Your task to perform on an android device: turn off notifications in google photos Image 0: 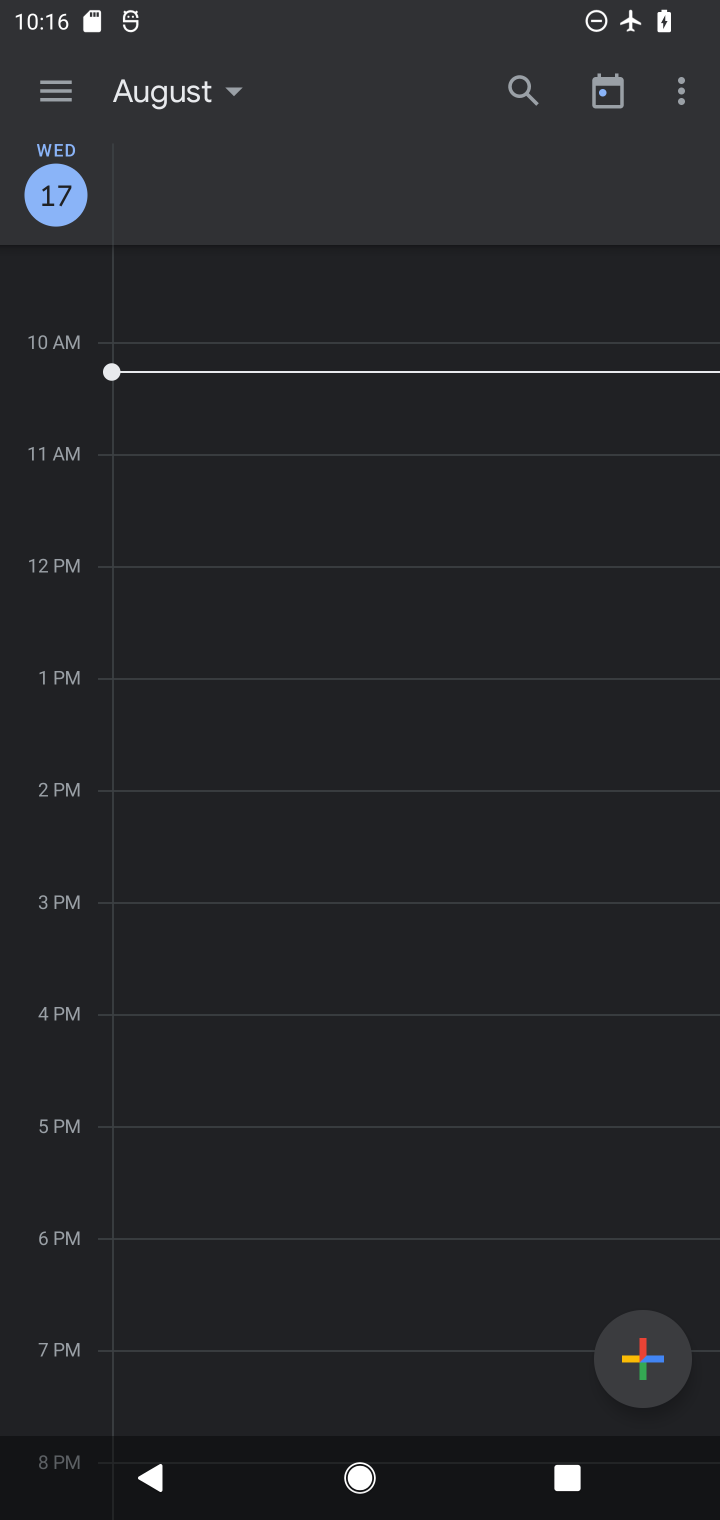
Step 0: press home button
Your task to perform on an android device: turn off notifications in google photos Image 1: 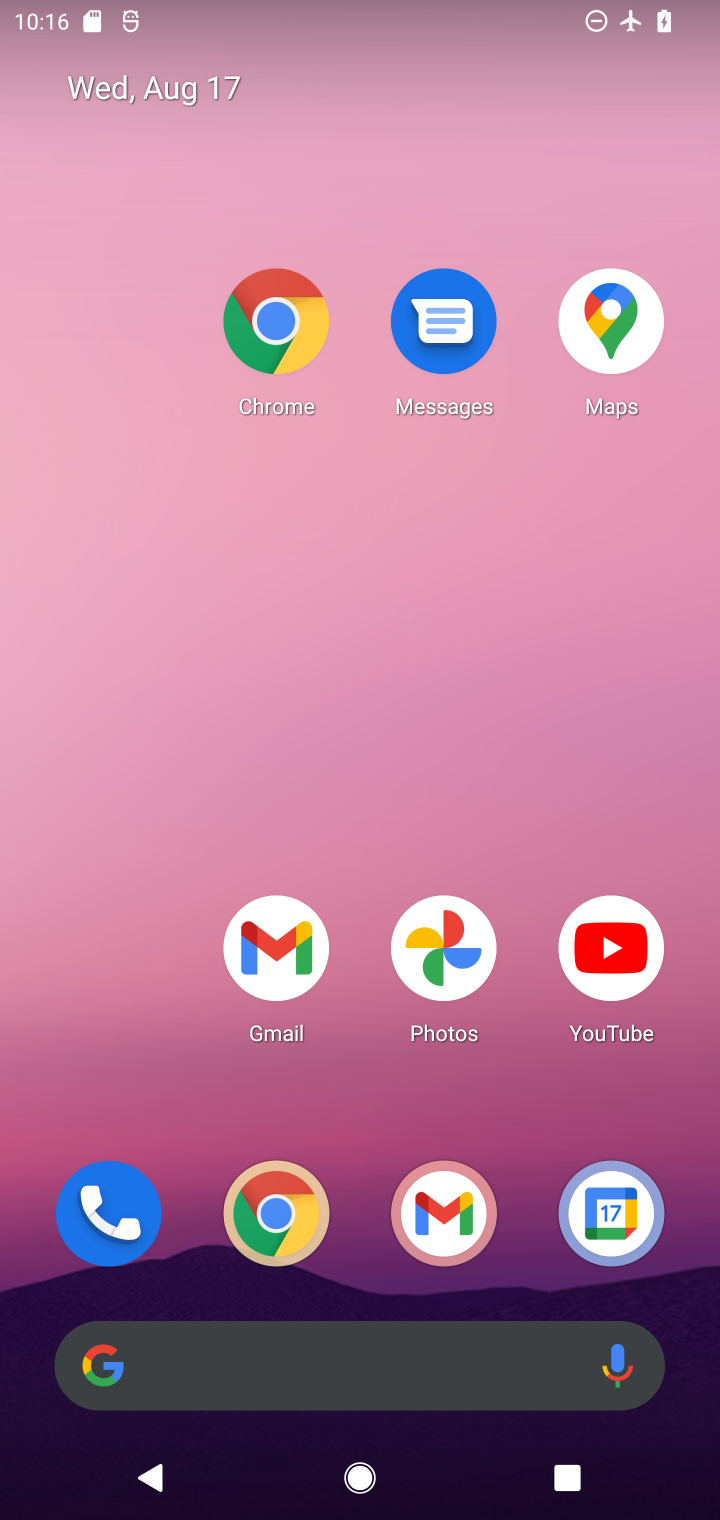
Step 1: click (438, 954)
Your task to perform on an android device: turn off notifications in google photos Image 2: 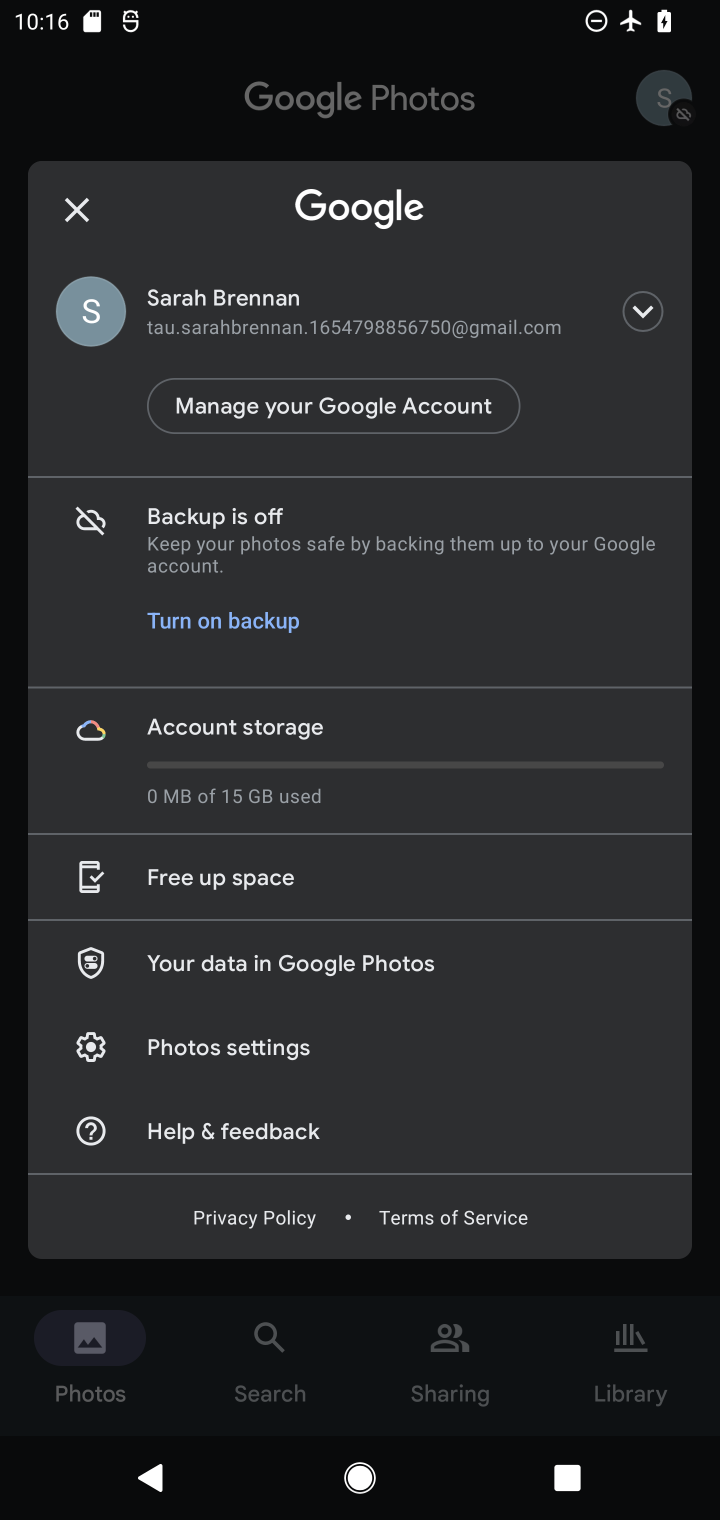
Step 2: task complete